Your task to perform on an android device: toggle airplane mode Image 0: 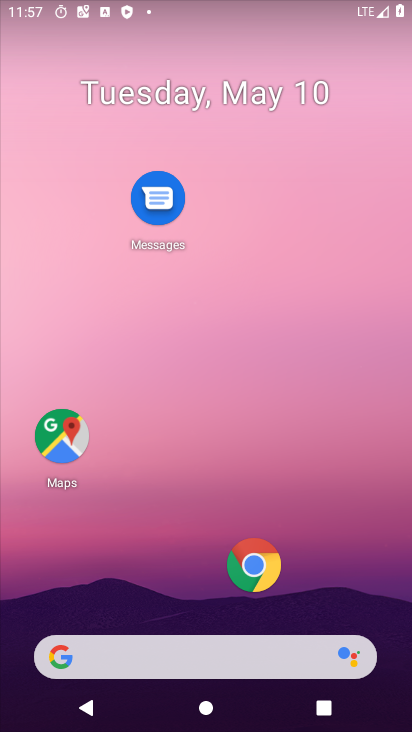
Step 0: drag from (186, 597) to (234, 197)
Your task to perform on an android device: toggle airplane mode Image 1: 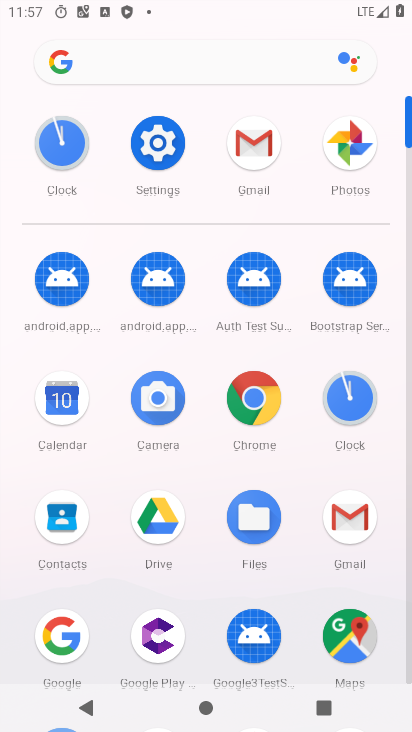
Step 1: click (166, 165)
Your task to perform on an android device: toggle airplane mode Image 2: 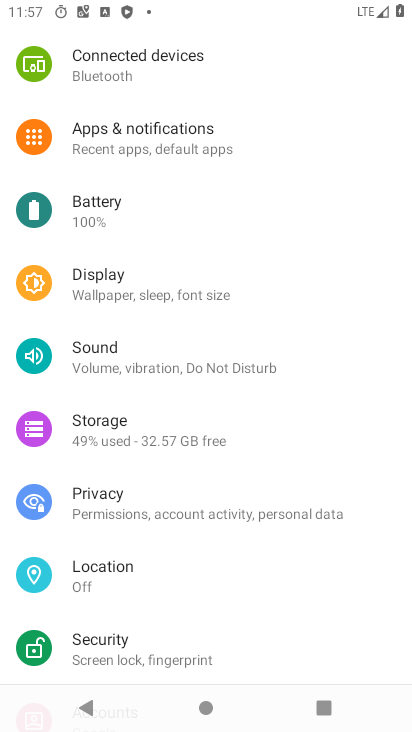
Step 2: drag from (168, 162) to (153, 729)
Your task to perform on an android device: toggle airplane mode Image 3: 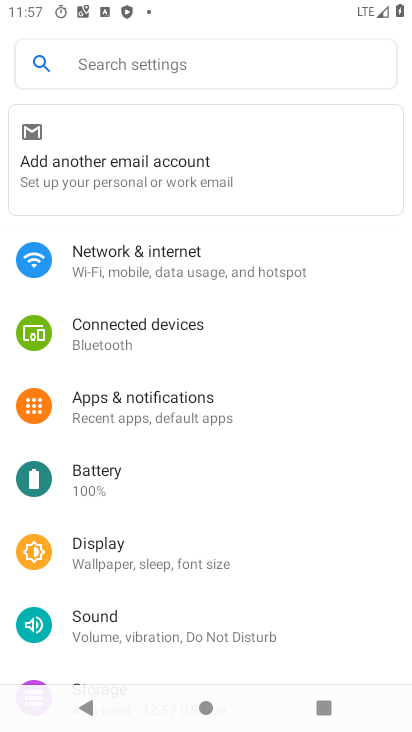
Step 3: click (118, 262)
Your task to perform on an android device: toggle airplane mode Image 4: 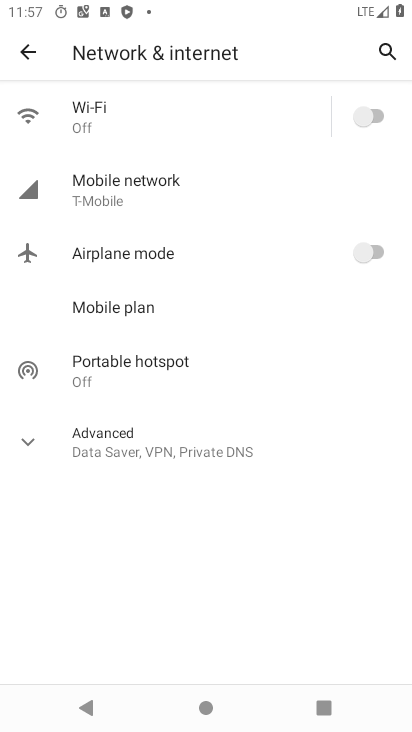
Step 4: click (351, 265)
Your task to perform on an android device: toggle airplane mode Image 5: 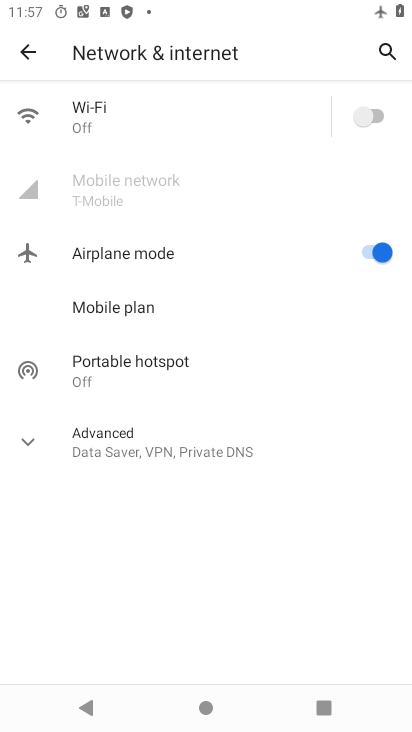
Step 5: task complete